Your task to perform on an android device: Clear the cart on newegg.com. Search for "macbook pro" on newegg.com, select the first entry, and add it to the cart. Image 0: 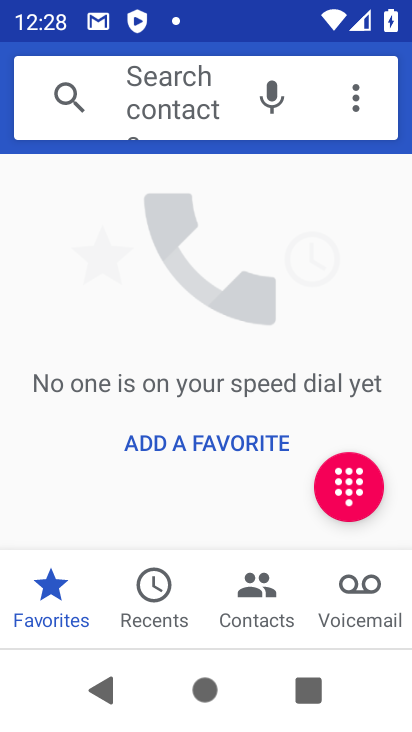
Step 0: press home button
Your task to perform on an android device: Clear the cart on newegg.com. Search for "macbook pro" on newegg.com, select the first entry, and add it to the cart. Image 1: 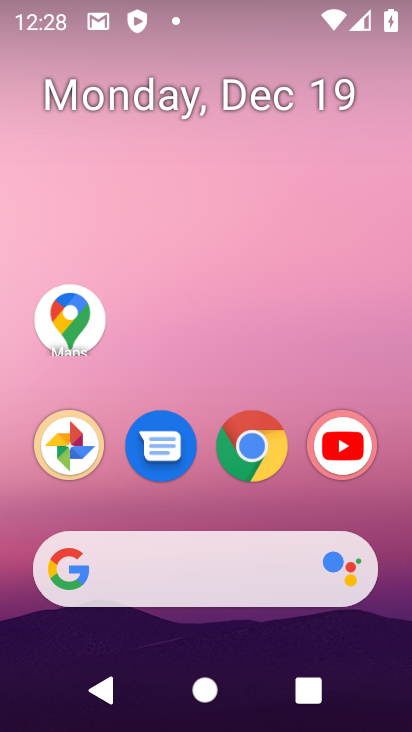
Step 1: click (280, 454)
Your task to perform on an android device: Clear the cart on newegg.com. Search for "macbook pro" on newegg.com, select the first entry, and add it to the cart. Image 2: 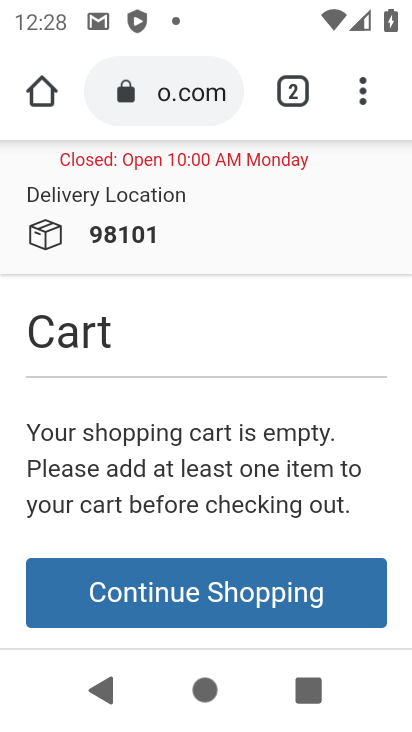
Step 2: click (161, 75)
Your task to perform on an android device: Clear the cart on newegg.com. Search for "macbook pro" on newegg.com, select the first entry, and add it to the cart. Image 3: 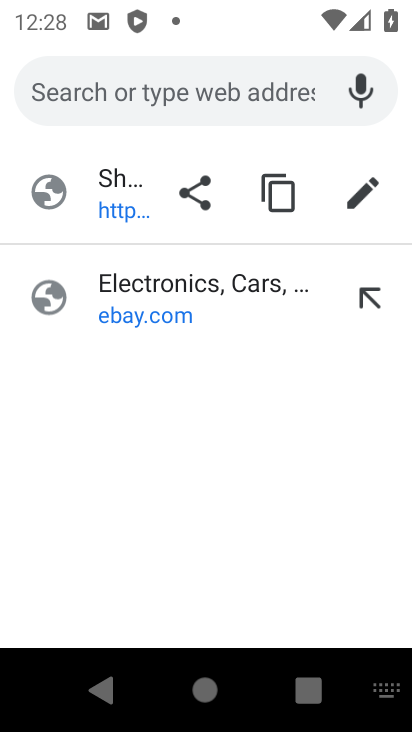
Step 3: type "newegg"
Your task to perform on an android device: Clear the cart on newegg.com. Search for "macbook pro" on newegg.com, select the first entry, and add it to the cart. Image 4: 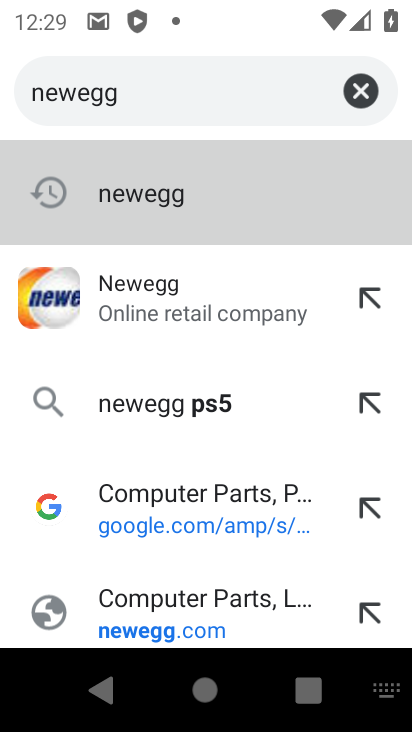
Step 4: click (110, 311)
Your task to perform on an android device: Clear the cart on newegg.com. Search for "macbook pro" on newegg.com, select the first entry, and add it to the cart. Image 5: 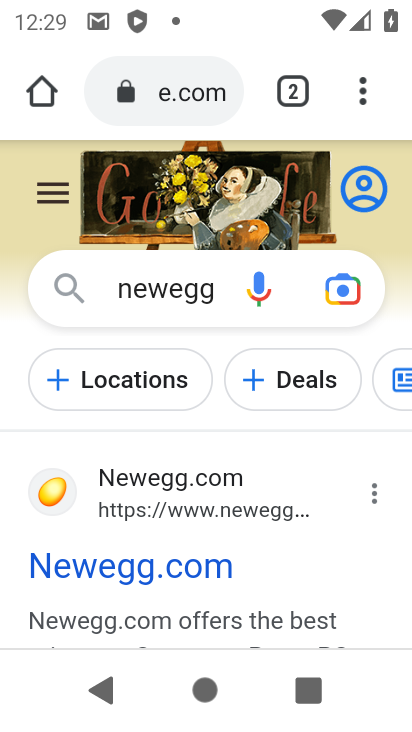
Step 5: click (207, 598)
Your task to perform on an android device: Clear the cart on newegg.com. Search for "macbook pro" on newegg.com, select the first entry, and add it to the cart. Image 6: 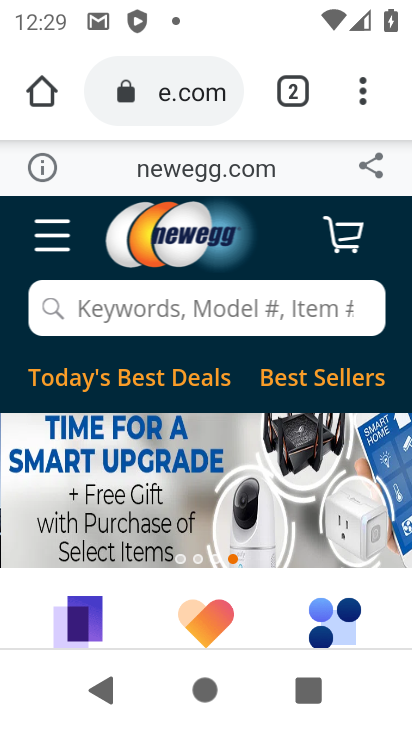
Step 6: click (195, 320)
Your task to perform on an android device: Clear the cart on newegg.com. Search for "macbook pro" on newegg.com, select the first entry, and add it to the cart. Image 7: 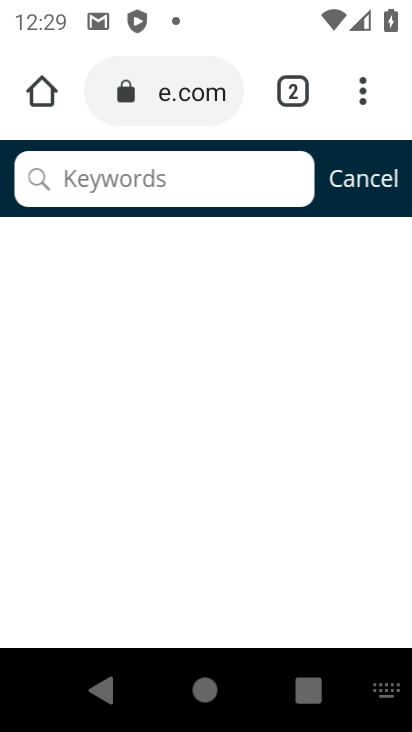
Step 7: type "macbook pro"
Your task to perform on an android device: Clear the cart on newegg.com. Search for "macbook pro" on newegg.com, select the first entry, and add it to the cart. Image 8: 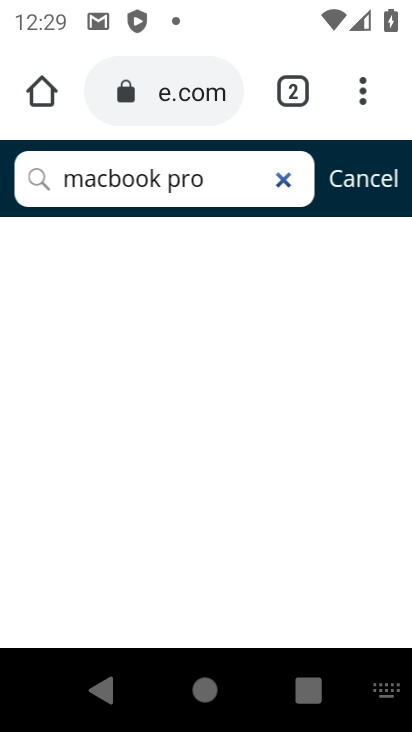
Step 8: task complete